Your task to perform on an android device: change text size in settings app Image 0: 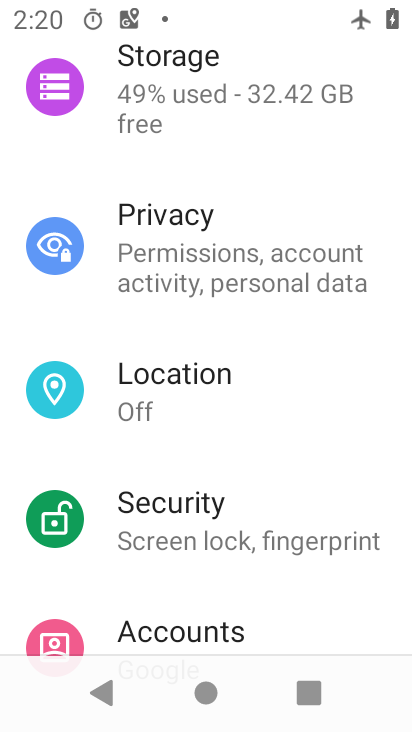
Step 0: drag from (258, 636) to (260, 240)
Your task to perform on an android device: change text size in settings app Image 1: 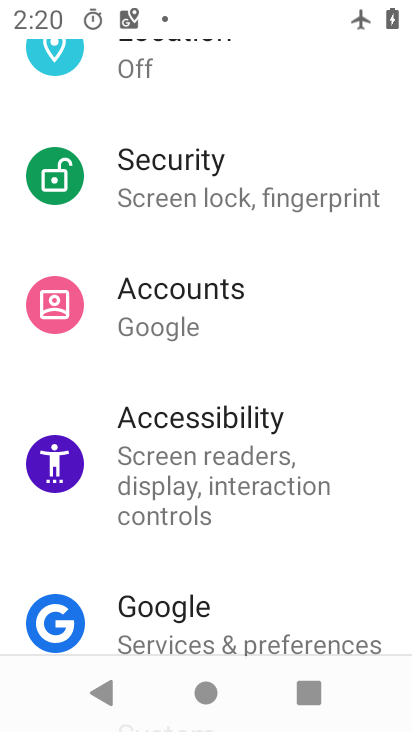
Step 1: drag from (263, 565) to (306, 135)
Your task to perform on an android device: change text size in settings app Image 2: 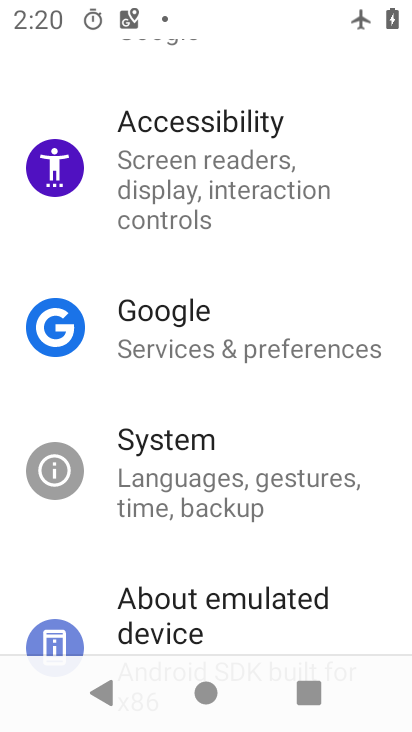
Step 2: drag from (236, 586) to (291, 126)
Your task to perform on an android device: change text size in settings app Image 3: 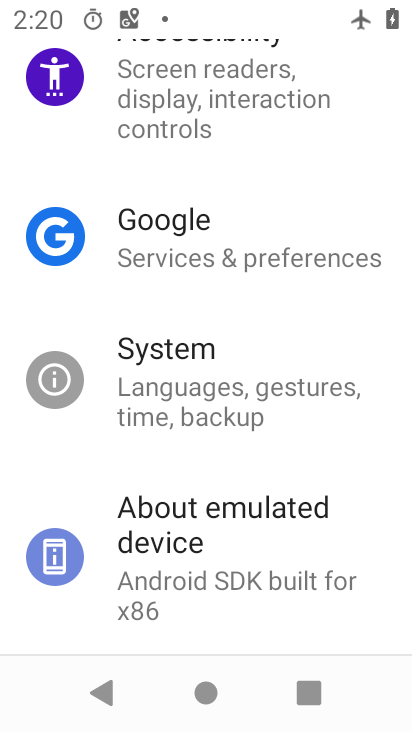
Step 3: drag from (269, 110) to (293, 633)
Your task to perform on an android device: change text size in settings app Image 4: 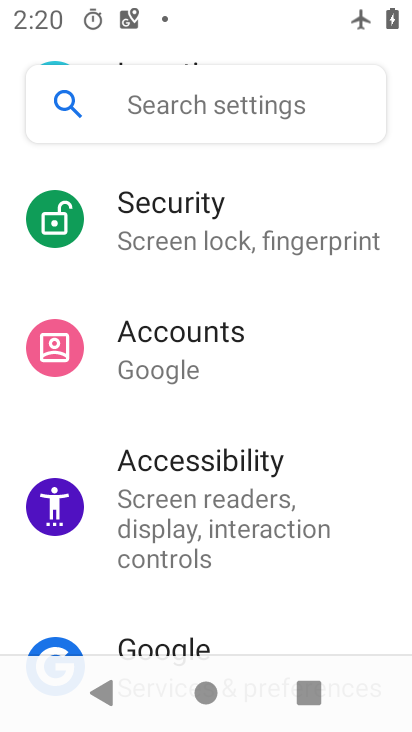
Step 4: drag from (301, 138) to (298, 649)
Your task to perform on an android device: change text size in settings app Image 5: 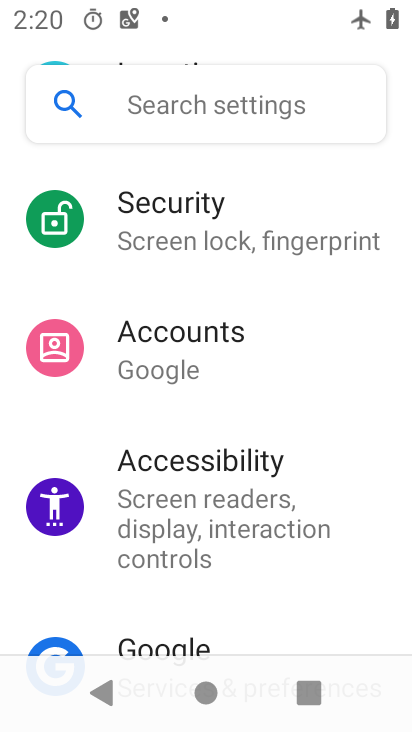
Step 5: drag from (316, 243) to (276, 643)
Your task to perform on an android device: change text size in settings app Image 6: 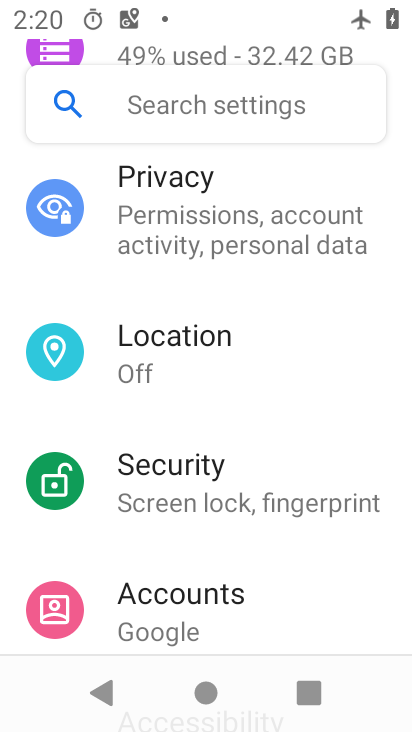
Step 6: drag from (256, 299) to (282, 548)
Your task to perform on an android device: change text size in settings app Image 7: 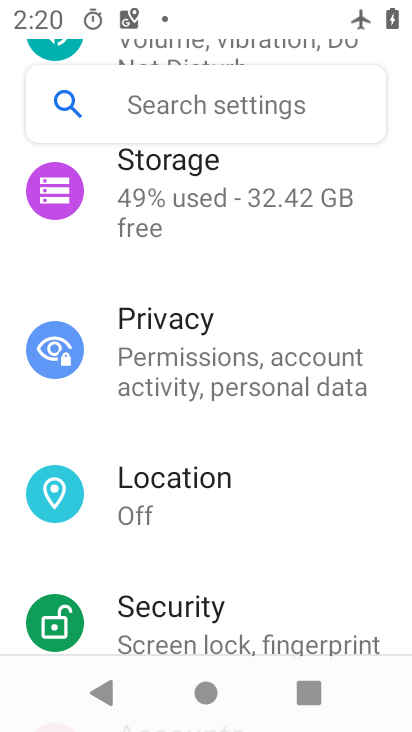
Step 7: drag from (281, 261) to (259, 693)
Your task to perform on an android device: change text size in settings app Image 8: 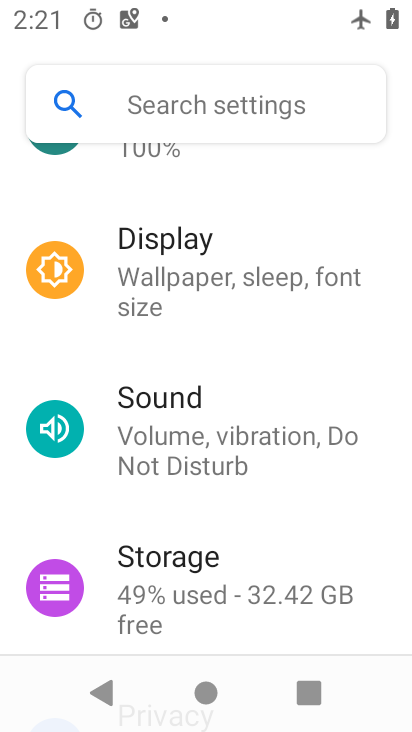
Step 8: drag from (291, 237) to (294, 698)
Your task to perform on an android device: change text size in settings app Image 9: 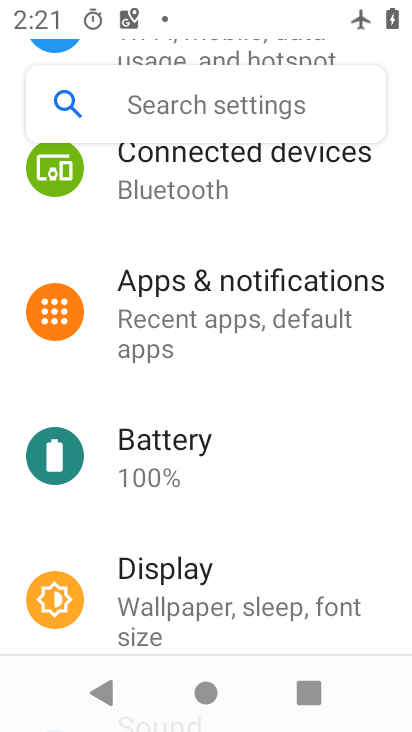
Step 9: drag from (272, 167) to (246, 598)
Your task to perform on an android device: change text size in settings app Image 10: 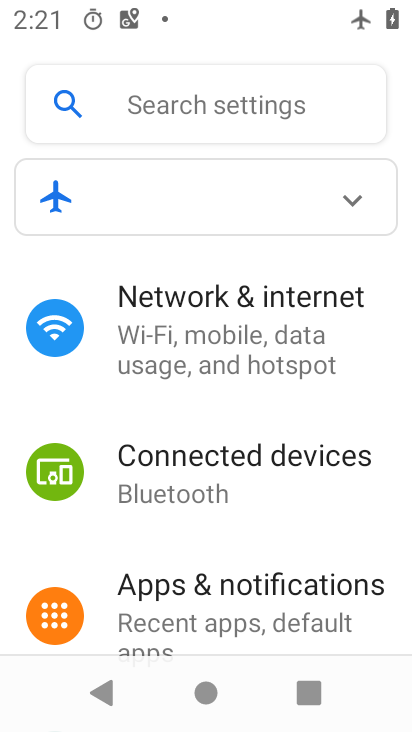
Step 10: drag from (298, 560) to (325, 159)
Your task to perform on an android device: change text size in settings app Image 11: 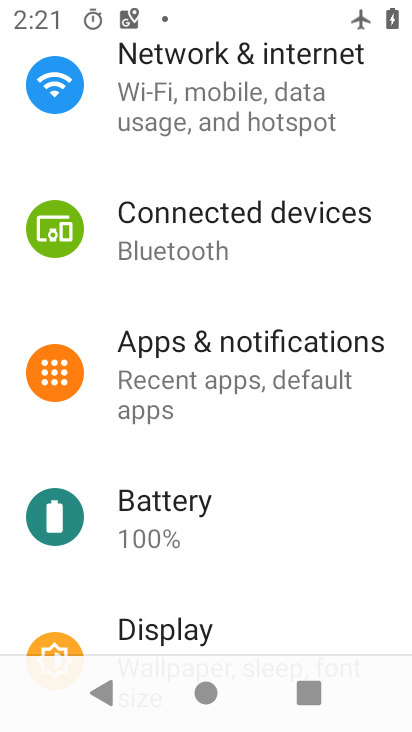
Step 11: drag from (156, 316) to (194, 616)
Your task to perform on an android device: change text size in settings app Image 12: 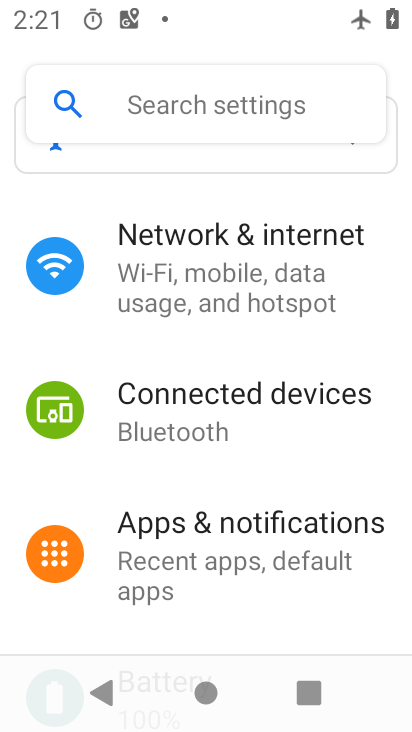
Step 12: drag from (185, 600) to (270, 137)
Your task to perform on an android device: change text size in settings app Image 13: 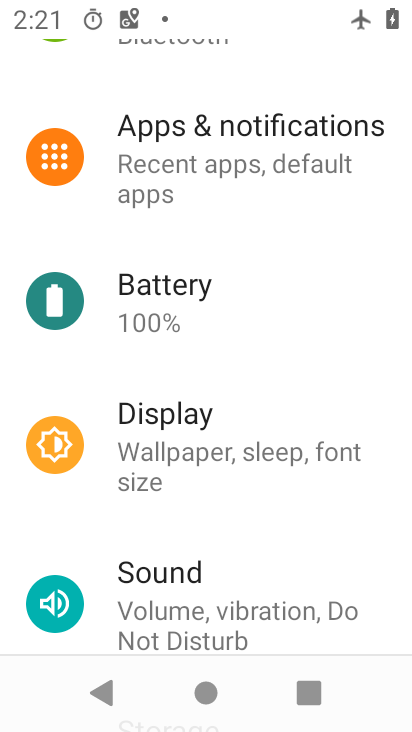
Step 13: drag from (183, 578) to (191, 286)
Your task to perform on an android device: change text size in settings app Image 14: 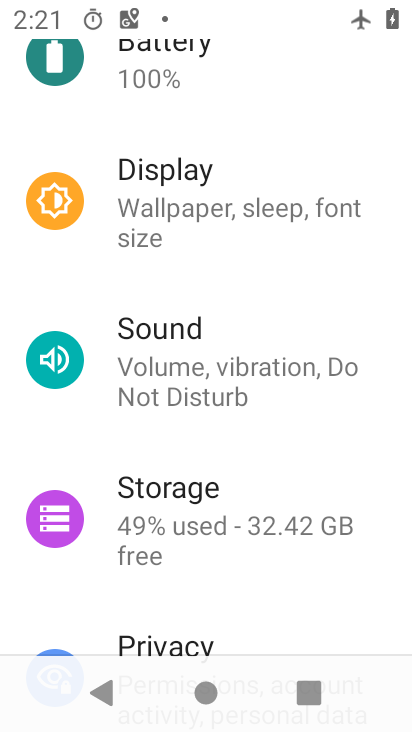
Step 14: click (212, 198)
Your task to perform on an android device: change text size in settings app Image 15: 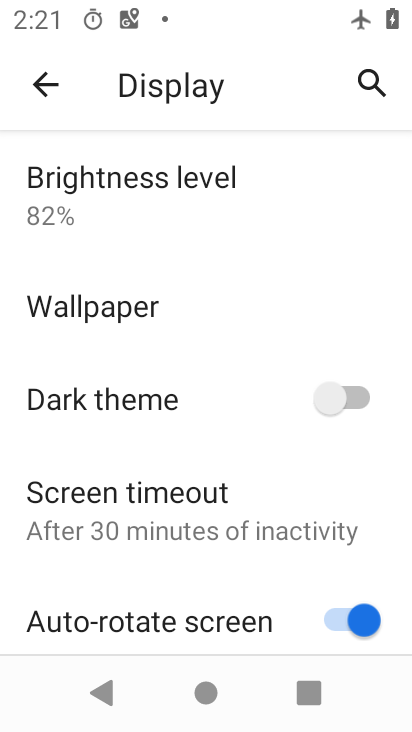
Step 15: drag from (150, 560) to (128, 177)
Your task to perform on an android device: change text size in settings app Image 16: 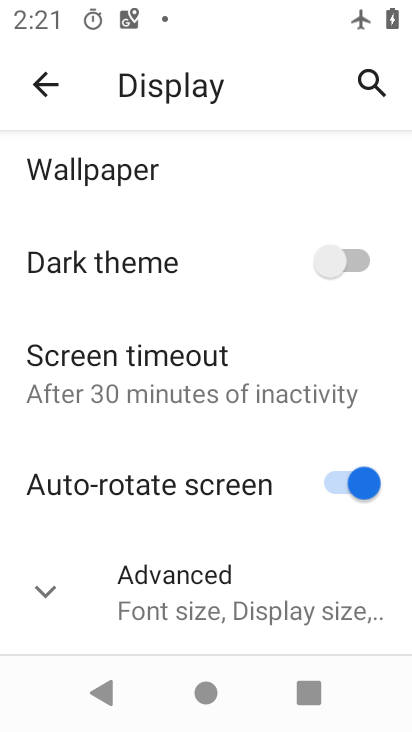
Step 16: click (191, 606)
Your task to perform on an android device: change text size in settings app Image 17: 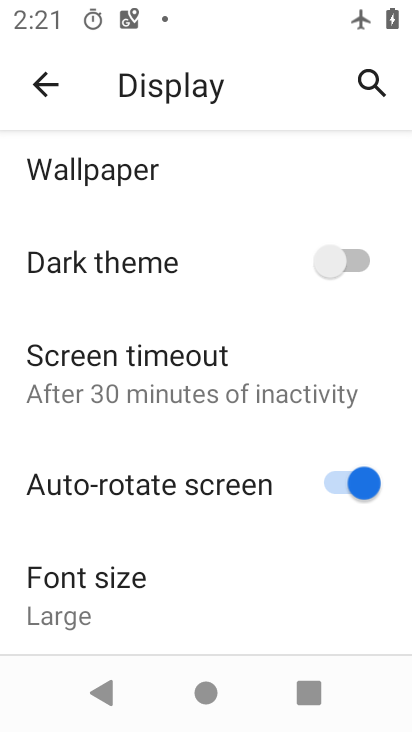
Step 17: drag from (116, 633) to (120, 225)
Your task to perform on an android device: change text size in settings app Image 18: 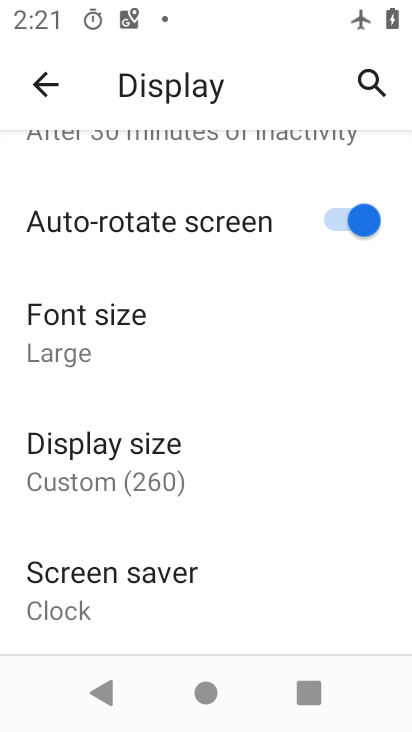
Step 18: click (115, 295)
Your task to perform on an android device: change text size in settings app Image 19: 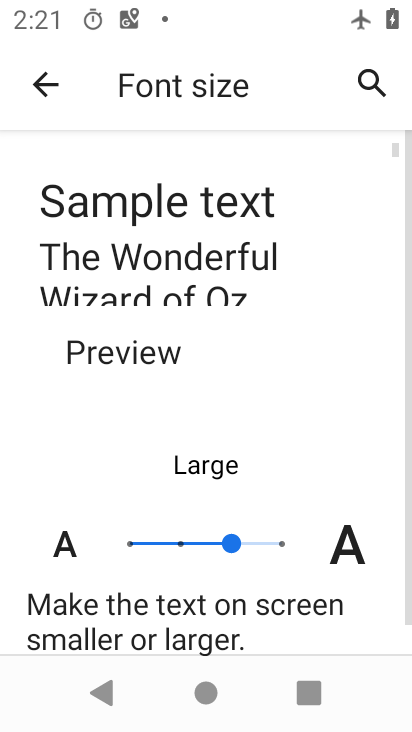
Step 19: click (211, 543)
Your task to perform on an android device: change text size in settings app Image 20: 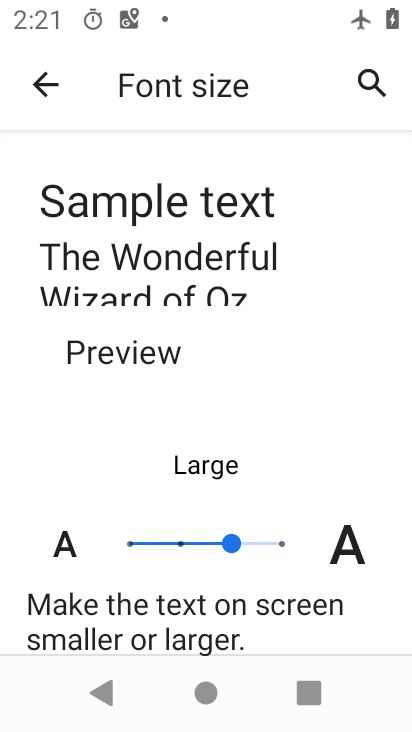
Step 20: task complete